Your task to perform on an android device: toggle notifications settings in the gmail app Image 0: 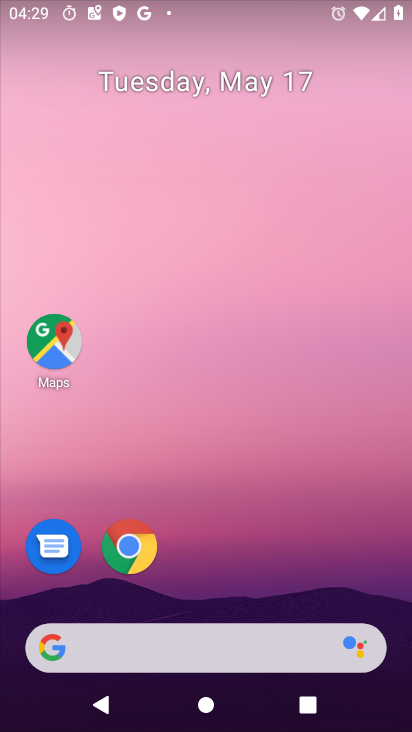
Step 0: click (373, 548)
Your task to perform on an android device: toggle notifications settings in the gmail app Image 1: 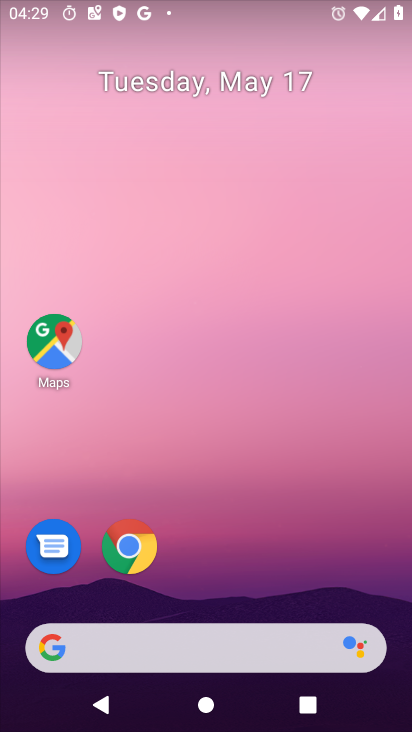
Step 1: drag from (397, 657) to (387, 434)
Your task to perform on an android device: toggle notifications settings in the gmail app Image 2: 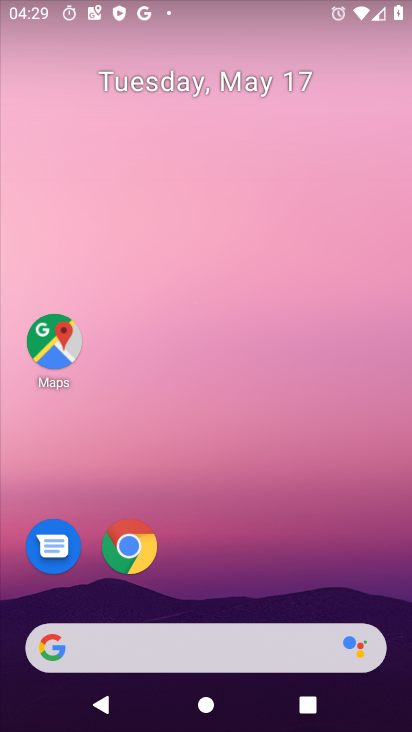
Step 2: drag from (406, 491) to (395, 103)
Your task to perform on an android device: toggle notifications settings in the gmail app Image 3: 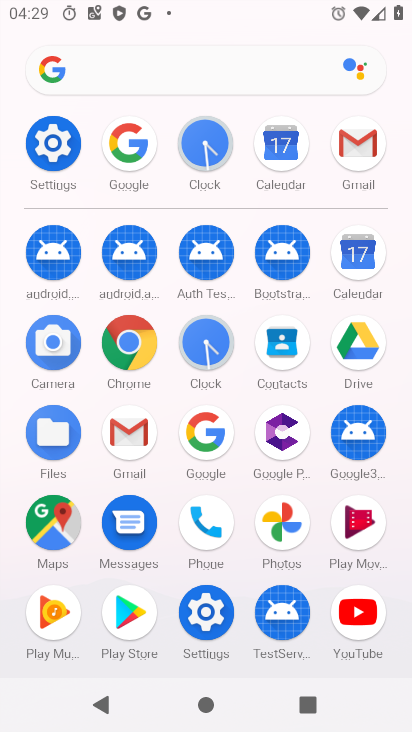
Step 3: click (121, 427)
Your task to perform on an android device: toggle notifications settings in the gmail app Image 4: 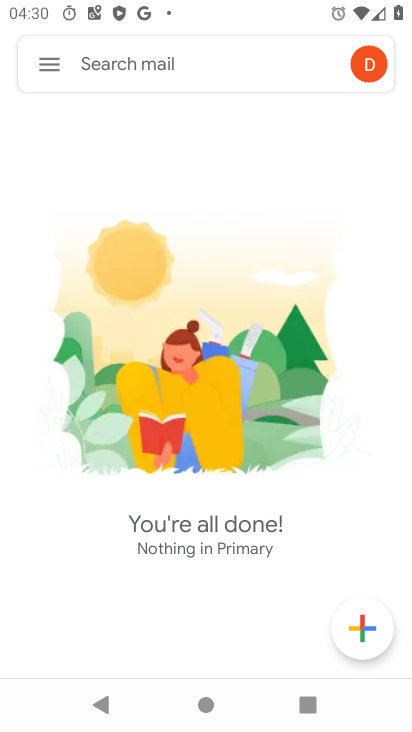
Step 4: click (50, 53)
Your task to perform on an android device: toggle notifications settings in the gmail app Image 5: 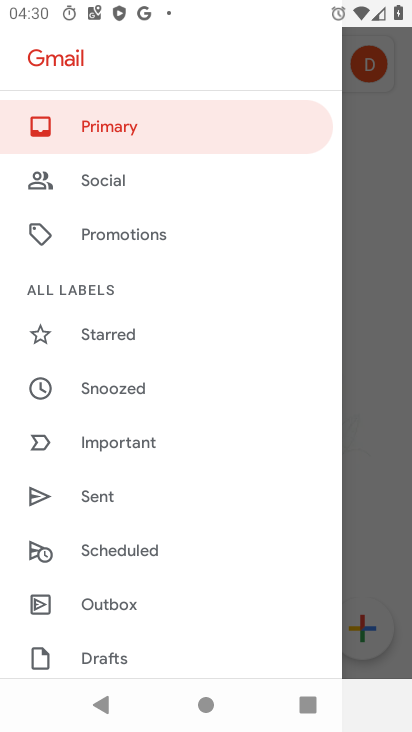
Step 5: drag from (229, 620) to (242, 242)
Your task to perform on an android device: toggle notifications settings in the gmail app Image 6: 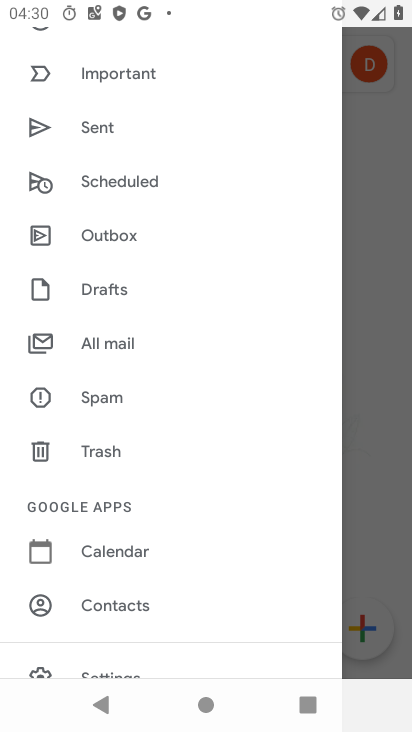
Step 6: click (217, 305)
Your task to perform on an android device: toggle notifications settings in the gmail app Image 7: 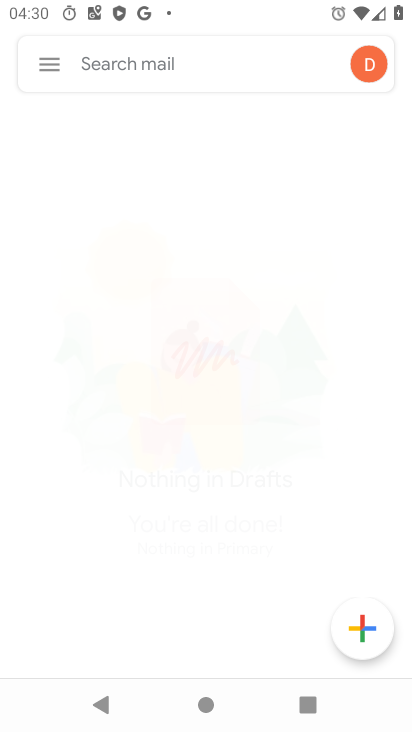
Step 7: drag from (187, 538) to (191, 372)
Your task to perform on an android device: toggle notifications settings in the gmail app Image 8: 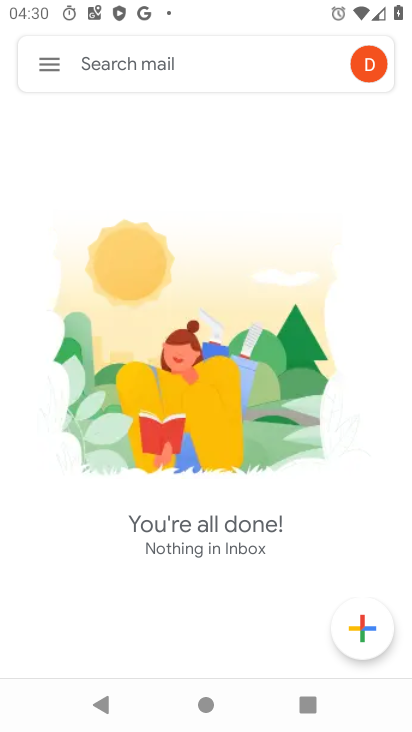
Step 8: click (58, 64)
Your task to perform on an android device: toggle notifications settings in the gmail app Image 9: 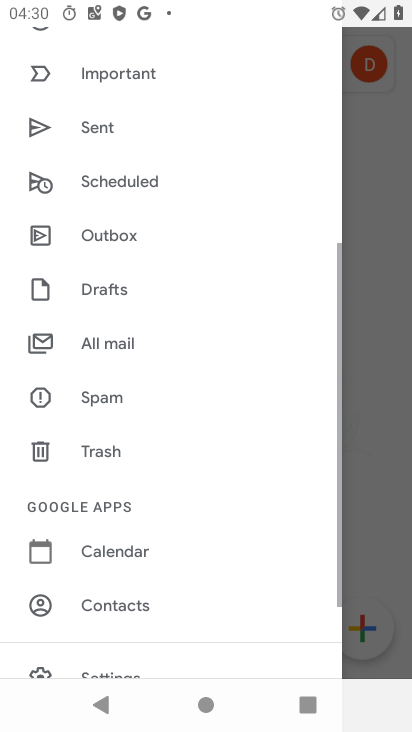
Step 9: drag from (286, 585) to (266, 279)
Your task to perform on an android device: toggle notifications settings in the gmail app Image 10: 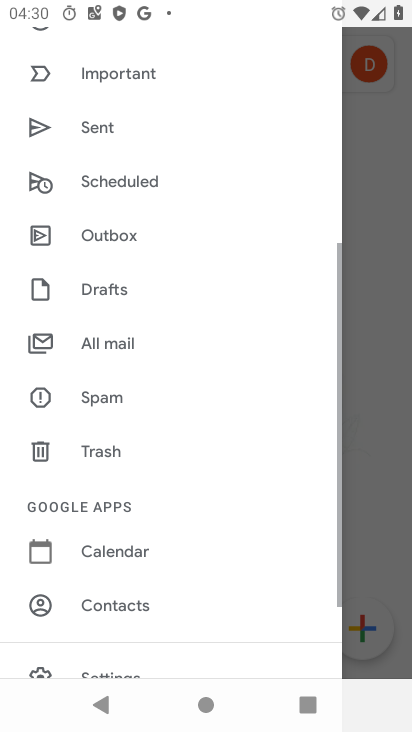
Step 10: drag from (247, 556) to (262, 259)
Your task to perform on an android device: toggle notifications settings in the gmail app Image 11: 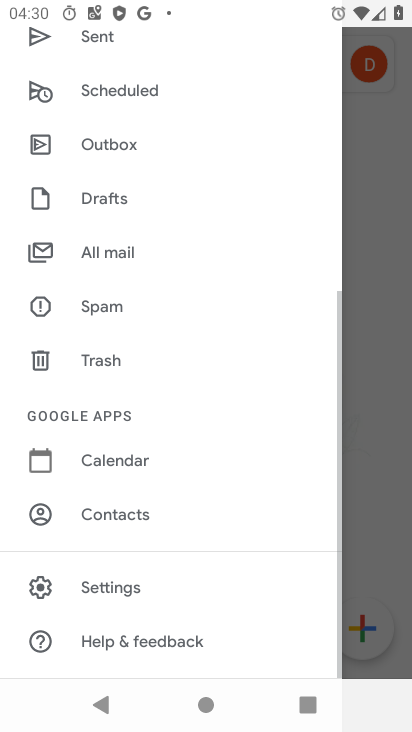
Step 11: click (75, 581)
Your task to perform on an android device: toggle notifications settings in the gmail app Image 12: 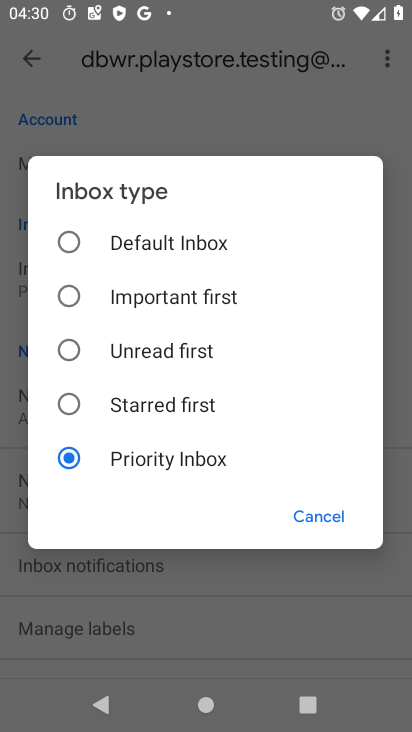
Step 12: click (316, 509)
Your task to perform on an android device: toggle notifications settings in the gmail app Image 13: 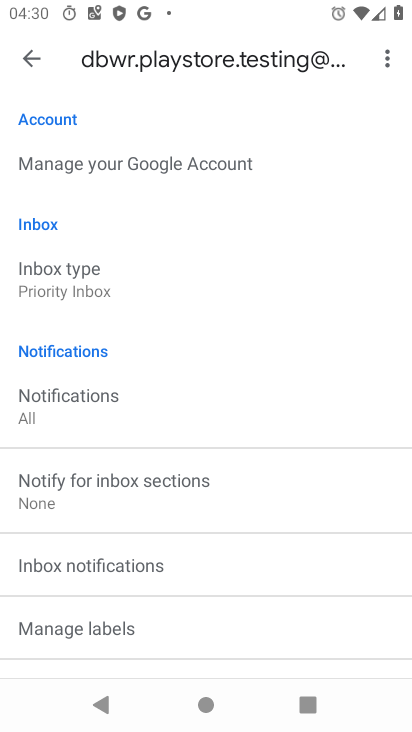
Step 13: click (32, 64)
Your task to perform on an android device: toggle notifications settings in the gmail app Image 14: 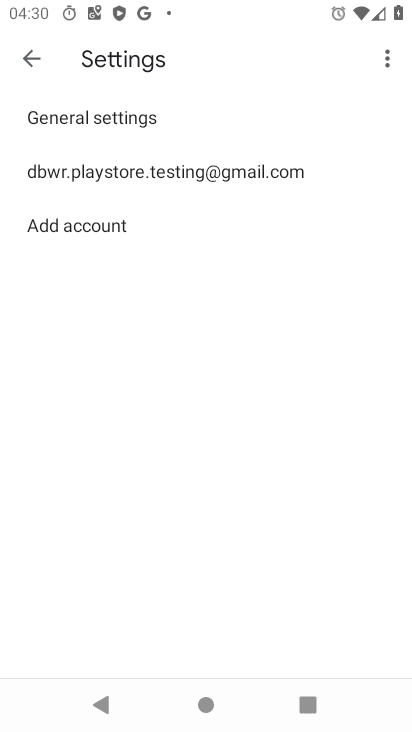
Step 14: click (78, 124)
Your task to perform on an android device: toggle notifications settings in the gmail app Image 15: 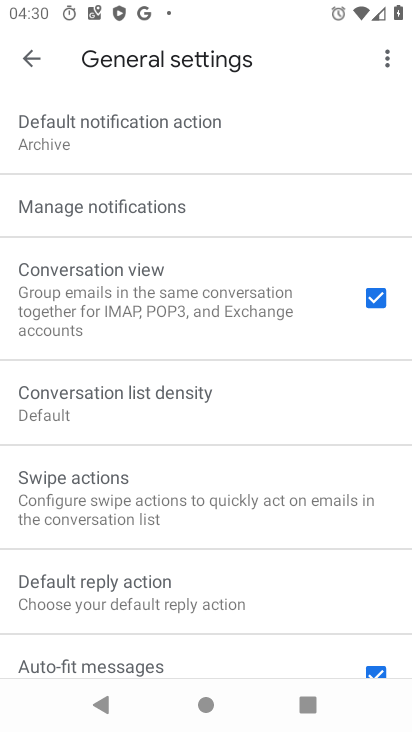
Step 15: drag from (244, 601) to (278, 220)
Your task to perform on an android device: toggle notifications settings in the gmail app Image 16: 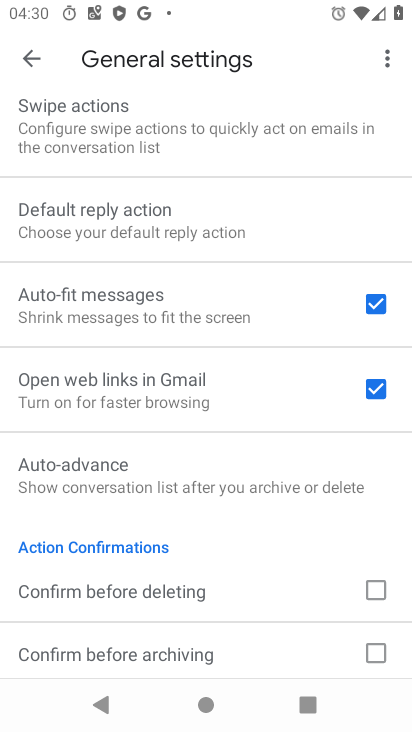
Step 16: drag from (236, 606) to (239, 346)
Your task to perform on an android device: toggle notifications settings in the gmail app Image 17: 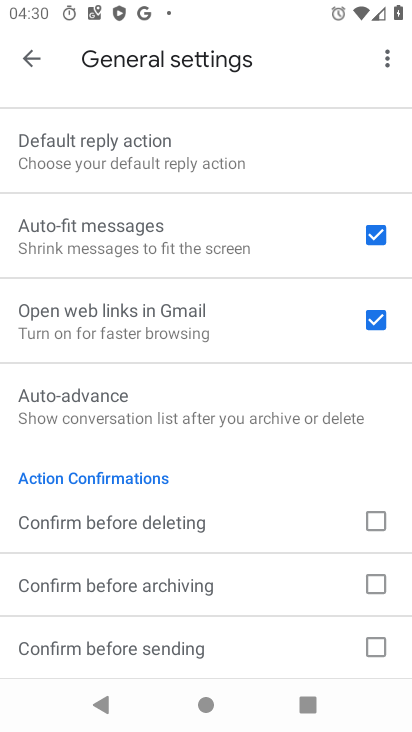
Step 17: drag from (214, 245) to (216, 463)
Your task to perform on an android device: toggle notifications settings in the gmail app Image 18: 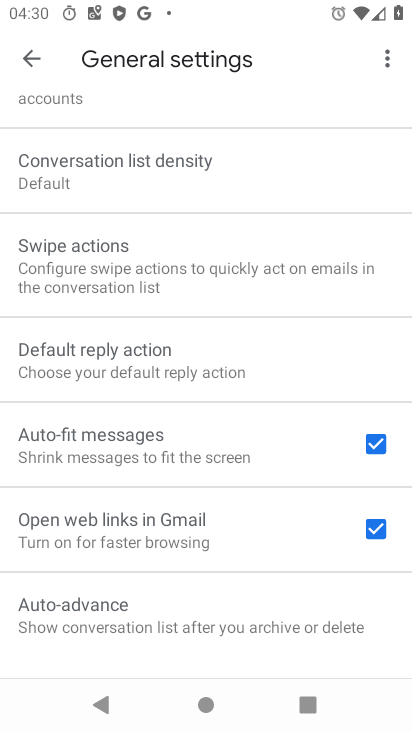
Step 18: drag from (181, 162) to (195, 374)
Your task to perform on an android device: toggle notifications settings in the gmail app Image 19: 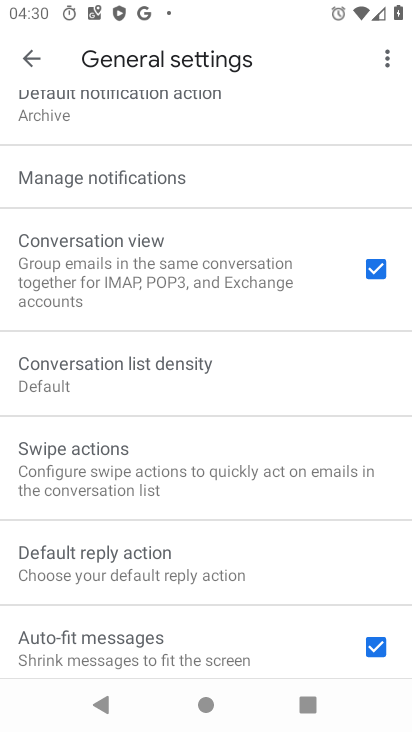
Step 19: drag from (192, 185) to (195, 491)
Your task to perform on an android device: toggle notifications settings in the gmail app Image 20: 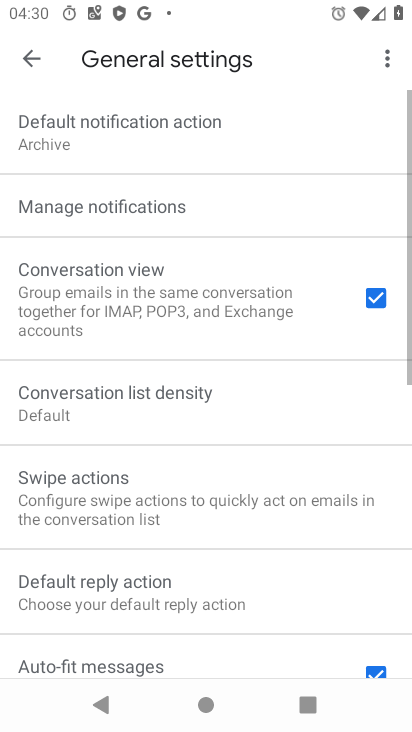
Step 20: drag from (208, 163) to (222, 392)
Your task to perform on an android device: toggle notifications settings in the gmail app Image 21: 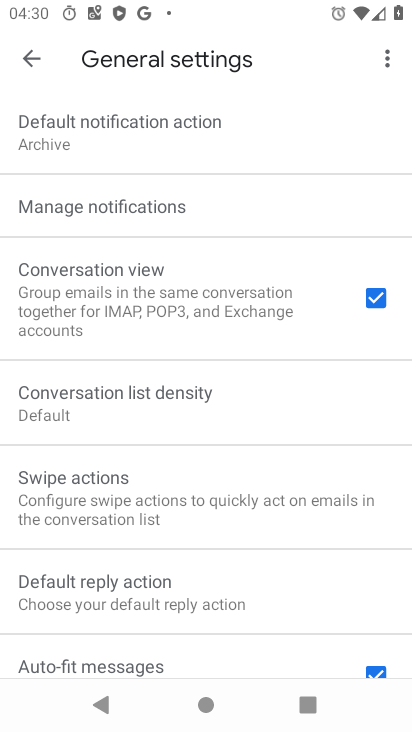
Step 21: click (77, 206)
Your task to perform on an android device: toggle notifications settings in the gmail app Image 22: 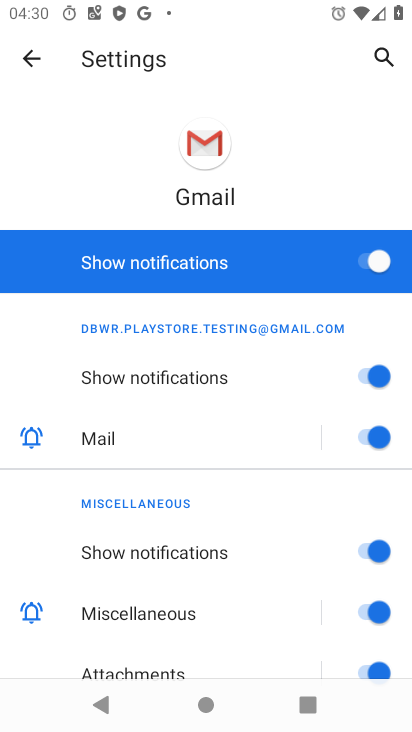
Step 22: click (371, 254)
Your task to perform on an android device: toggle notifications settings in the gmail app Image 23: 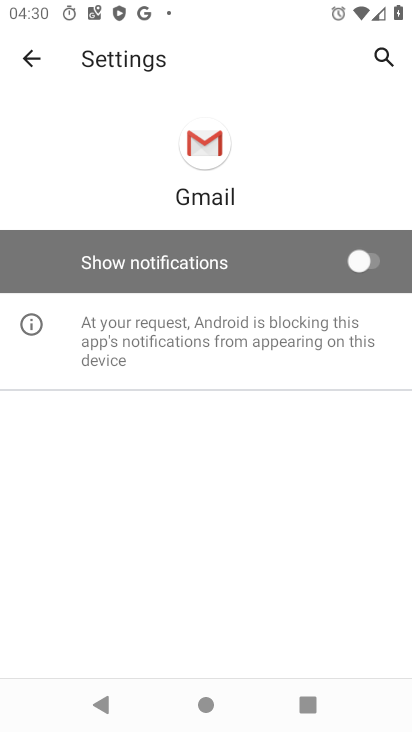
Step 23: task complete